Your task to perform on an android device: open wifi settings Image 0: 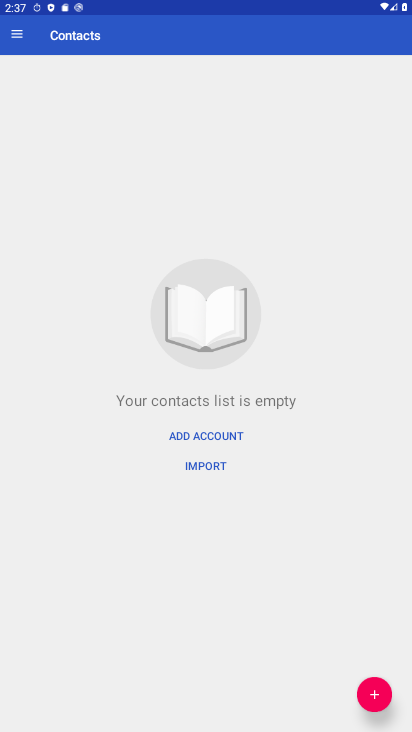
Step 0: press home button
Your task to perform on an android device: open wifi settings Image 1: 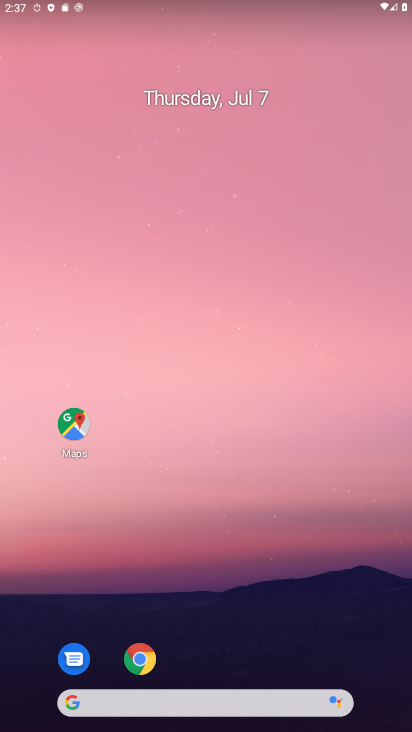
Step 1: drag from (47, 378) to (126, 34)
Your task to perform on an android device: open wifi settings Image 2: 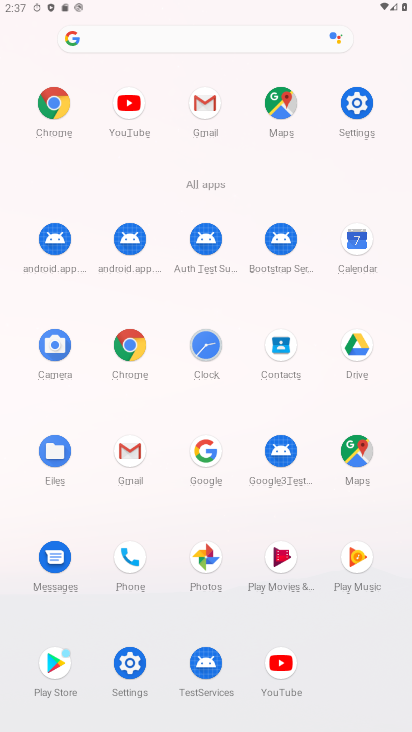
Step 2: click (127, 672)
Your task to perform on an android device: open wifi settings Image 3: 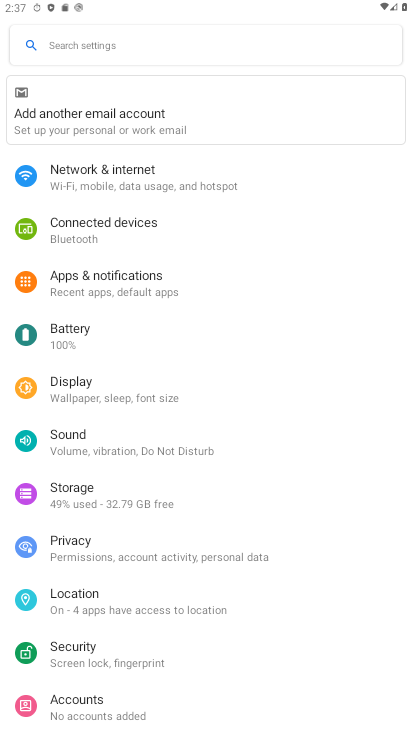
Step 3: click (115, 178)
Your task to perform on an android device: open wifi settings Image 4: 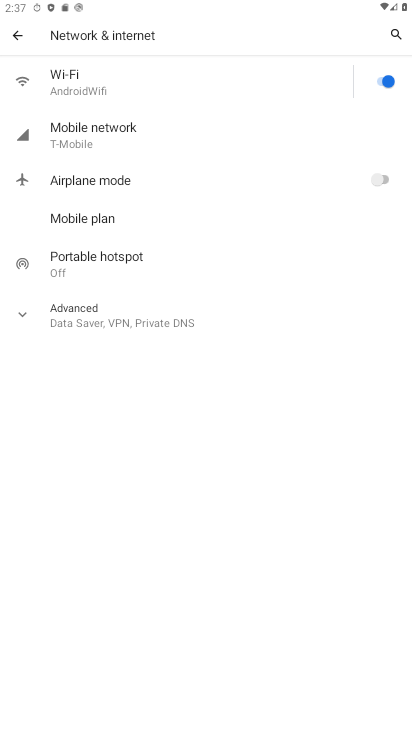
Step 4: click (66, 90)
Your task to perform on an android device: open wifi settings Image 5: 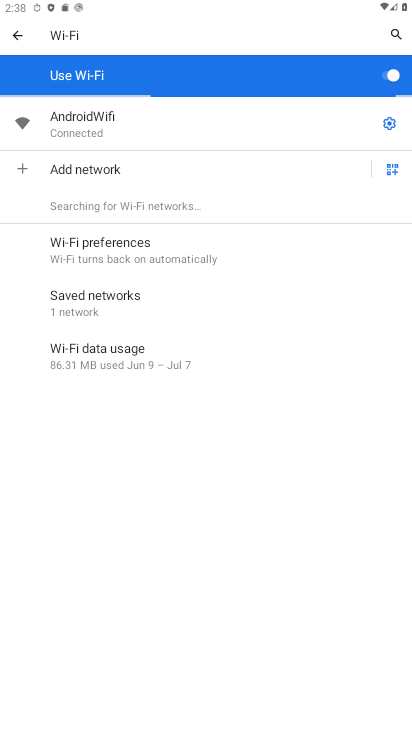
Step 5: task complete